Your task to perform on an android device: Go to battery settings Image 0: 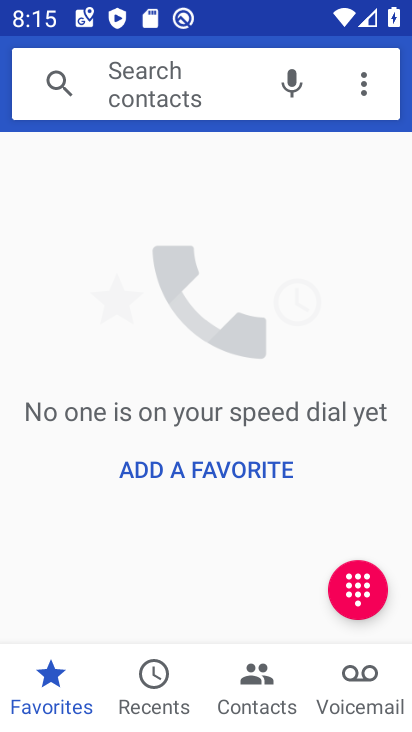
Step 0: press home button
Your task to perform on an android device: Go to battery settings Image 1: 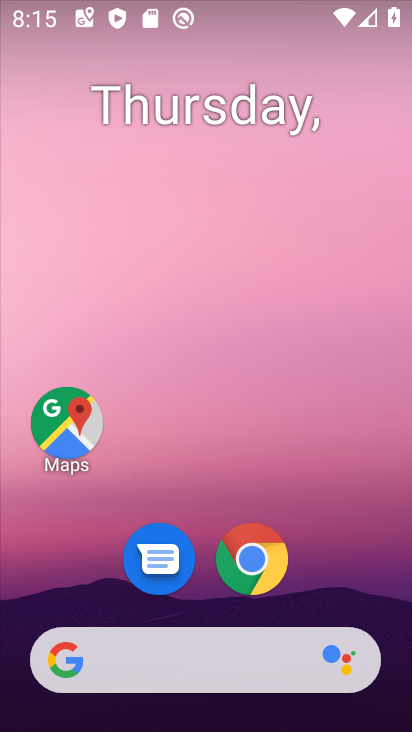
Step 1: drag from (219, 617) to (164, 79)
Your task to perform on an android device: Go to battery settings Image 2: 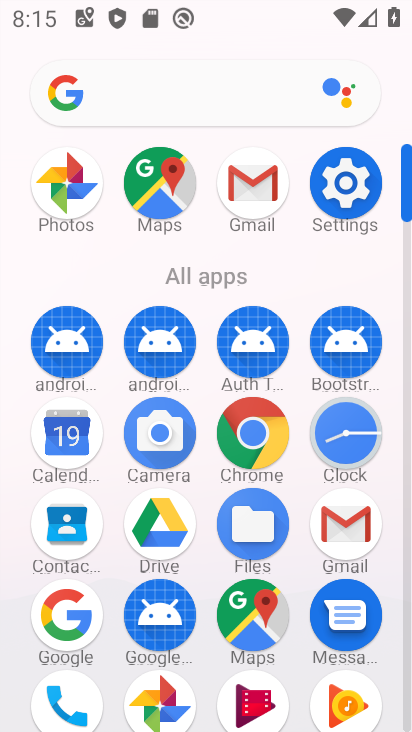
Step 2: click (331, 187)
Your task to perform on an android device: Go to battery settings Image 3: 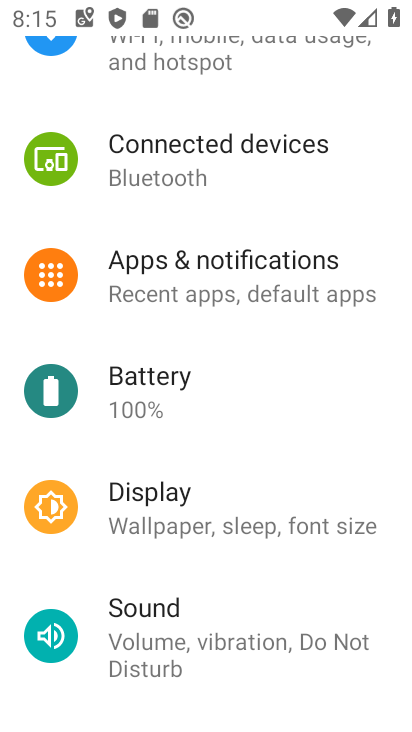
Step 3: click (196, 401)
Your task to perform on an android device: Go to battery settings Image 4: 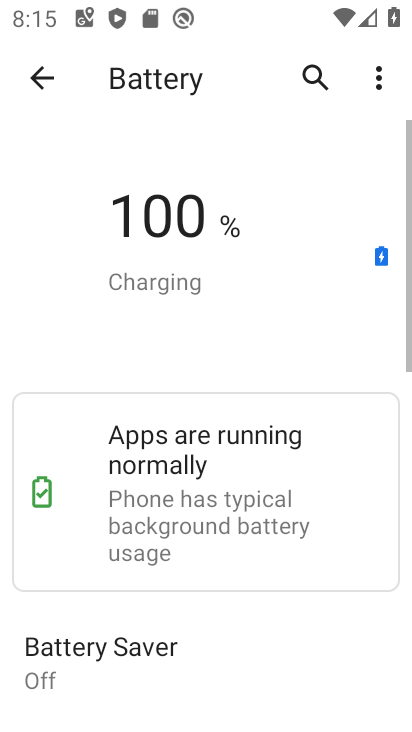
Step 4: task complete